Your task to perform on an android device: toggle wifi Image 0: 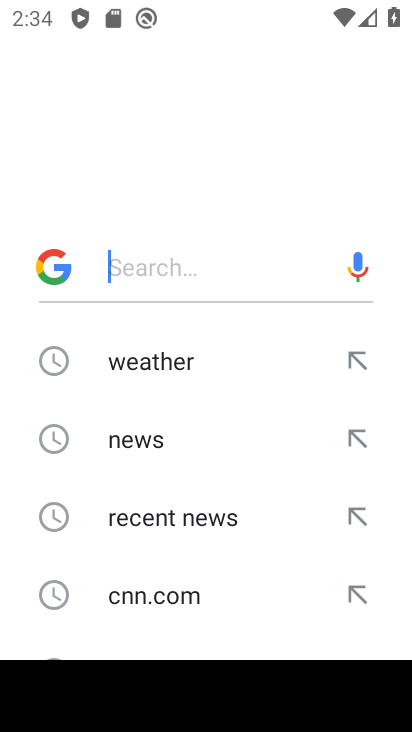
Step 0: press home button
Your task to perform on an android device: toggle wifi Image 1: 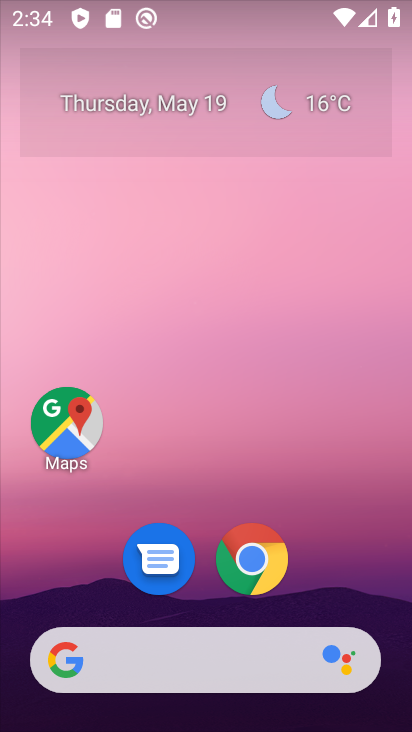
Step 1: drag from (199, 607) to (199, 307)
Your task to perform on an android device: toggle wifi Image 2: 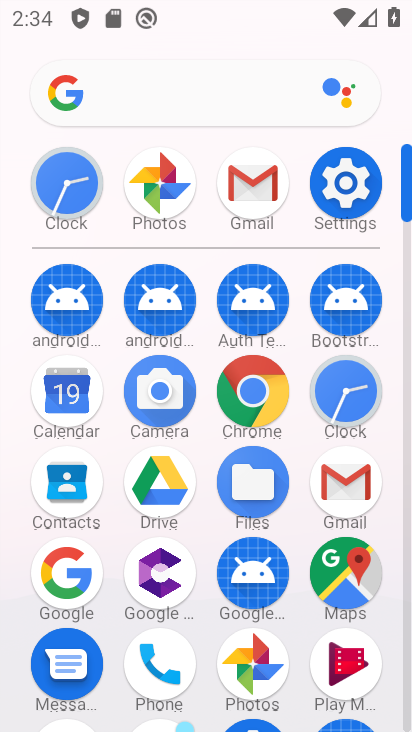
Step 2: click (333, 190)
Your task to perform on an android device: toggle wifi Image 3: 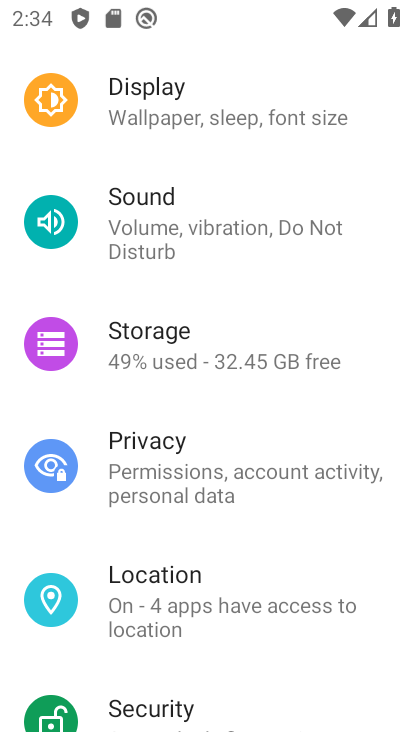
Step 3: drag from (206, 156) to (245, 485)
Your task to perform on an android device: toggle wifi Image 4: 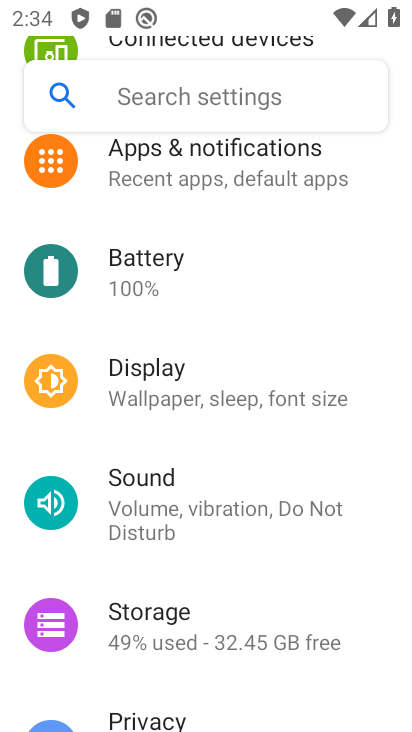
Step 4: drag from (180, 207) to (190, 532)
Your task to perform on an android device: toggle wifi Image 5: 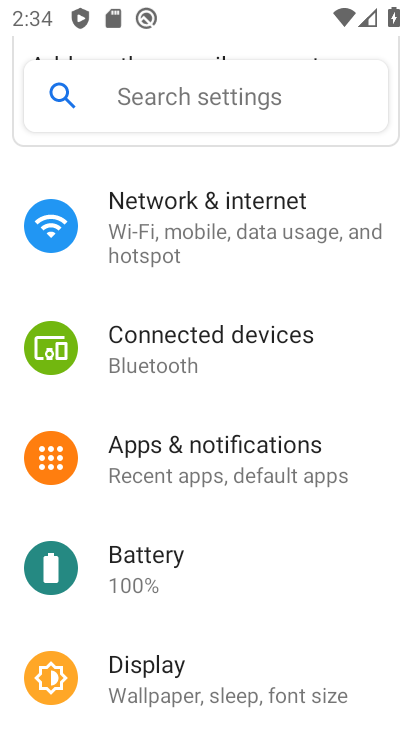
Step 5: click (156, 223)
Your task to perform on an android device: toggle wifi Image 6: 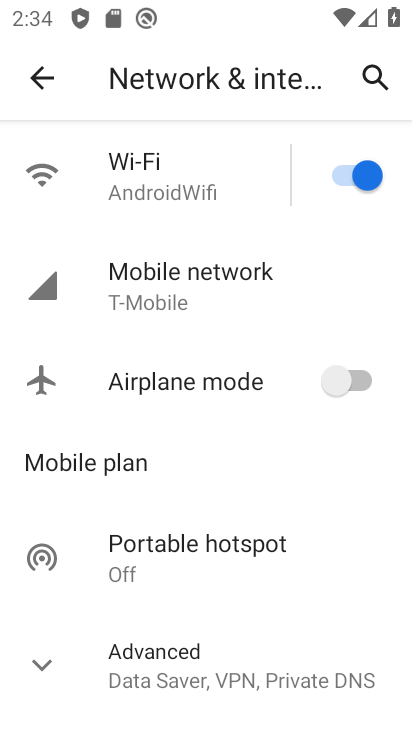
Step 6: click (338, 181)
Your task to perform on an android device: toggle wifi Image 7: 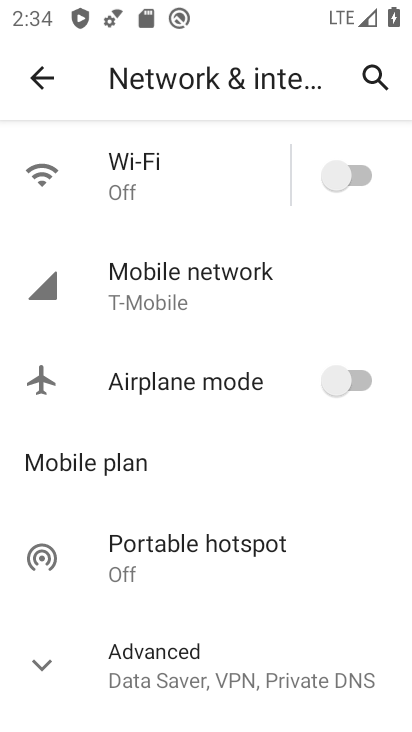
Step 7: task complete